Your task to perform on an android device: turn off notifications settings in the gmail app Image 0: 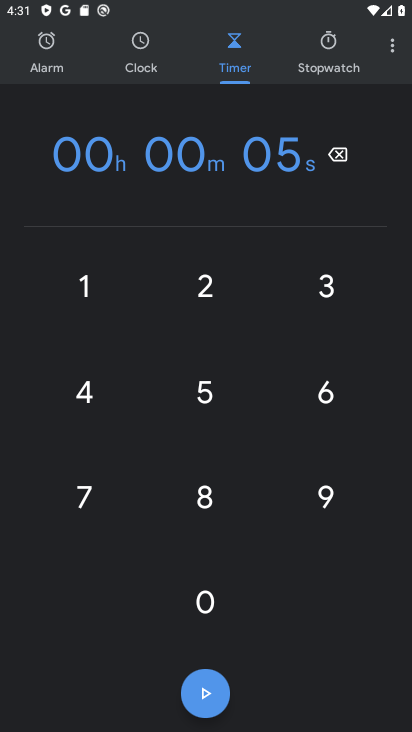
Step 0: press home button
Your task to perform on an android device: turn off notifications settings in the gmail app Image 1: 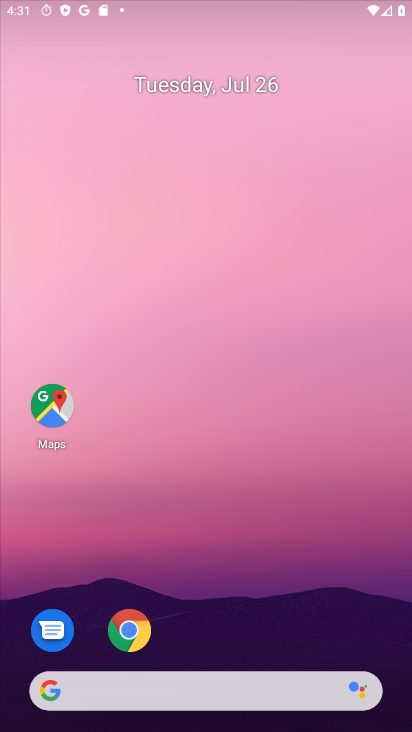
Step 1: drag from (280, 634) to (254, 71)
Your task to perform on an android device: turn off notifications settings in the gmail app Image 2: 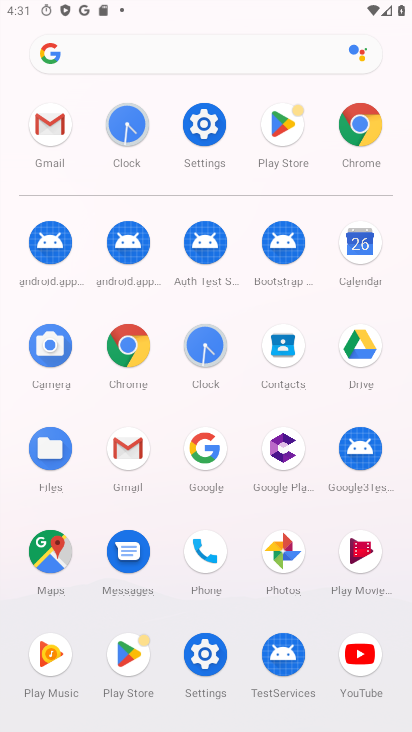
Step 2: click (53, 131)
Your task to perform on an android device: turn off notifications settings in the gmail app Image 3: 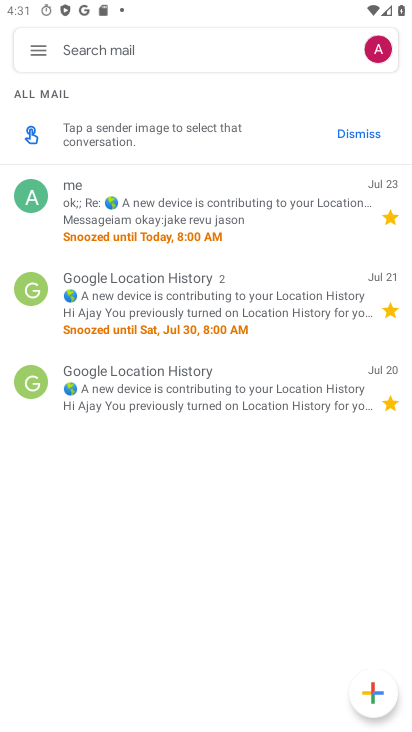
Step 3: click (37, 54)
Your task to perform on an android device: turn off notifications settings in the gmail app Image 4: 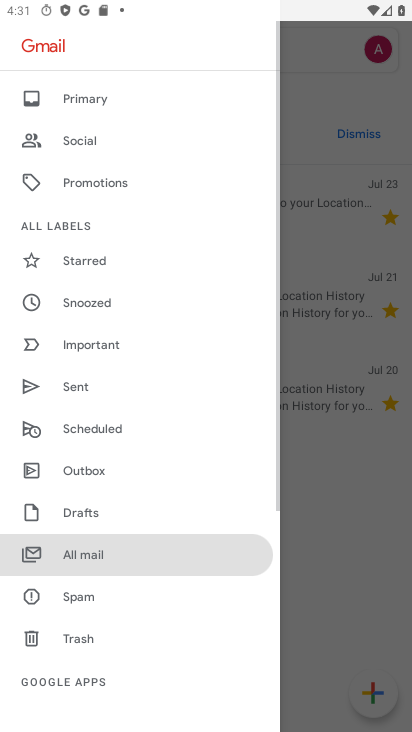
Step 4: drag from (82, 651) to (177, 192)
Your task to perform on an android device: turn off notifications settings in the gmail app Image 5: 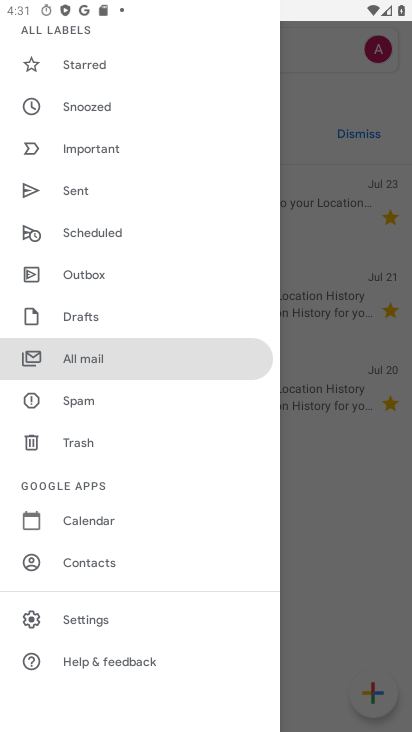
Step 5: click (103, 618)
Your task to perform on an android device: turn off notifications settings in the gmail app Image 6: 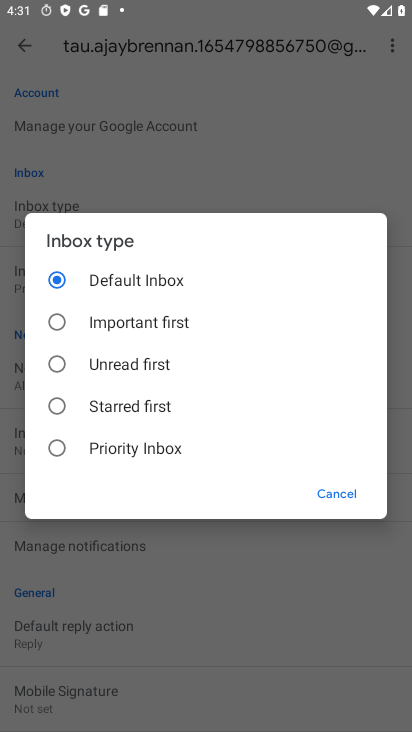
Step 6: click (347, 495)
Your task to perform on an android device: turn off notifications settings in the gmail app Image 7: 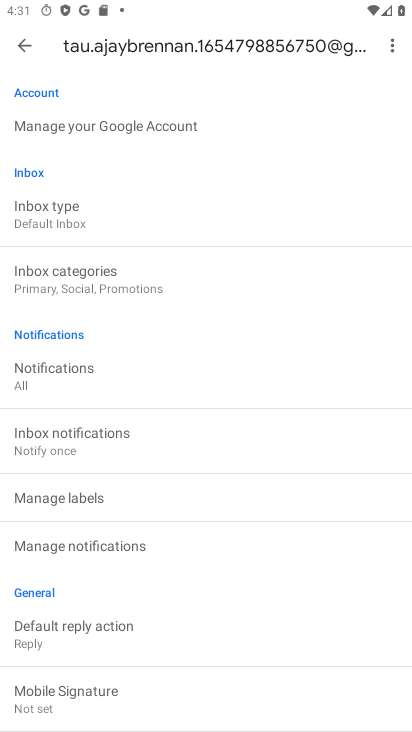
Step 7: click (127, 536)
Your task to perform on an android device: turn off notifications settings in the gmail app Image 8: 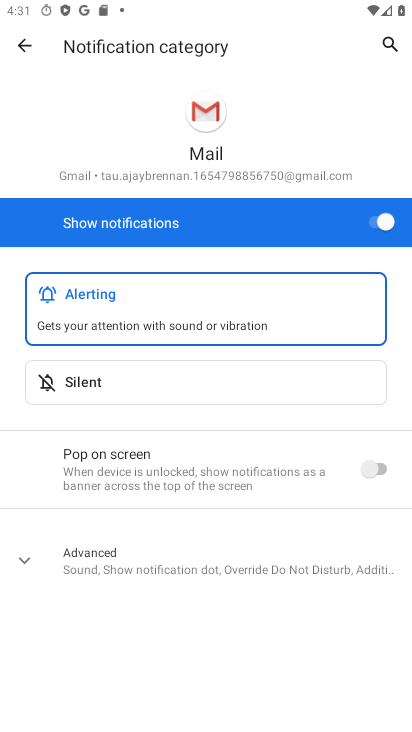
Step 8: click (382, 211)
Your task to perform on an android device: turn off notifications settings in the gmail app Image 9: 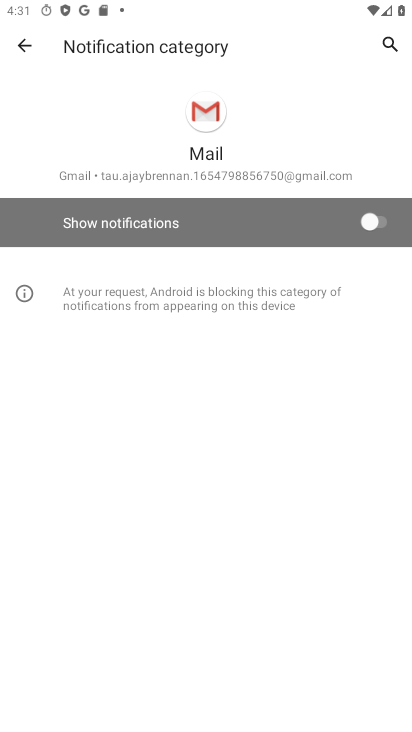
Step 9: task complete